Your task to perform on an android device: What's on my calendar tomorrow? Image 0: 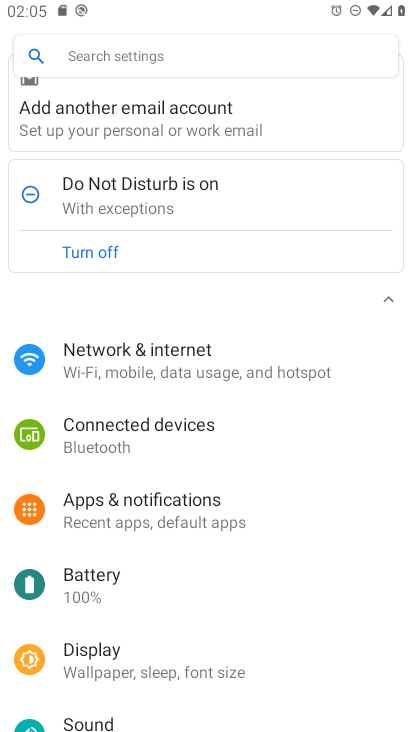
Step 0: press home button
Your task to perform on an android device: What's on my calendar tomorrow? Image 1: 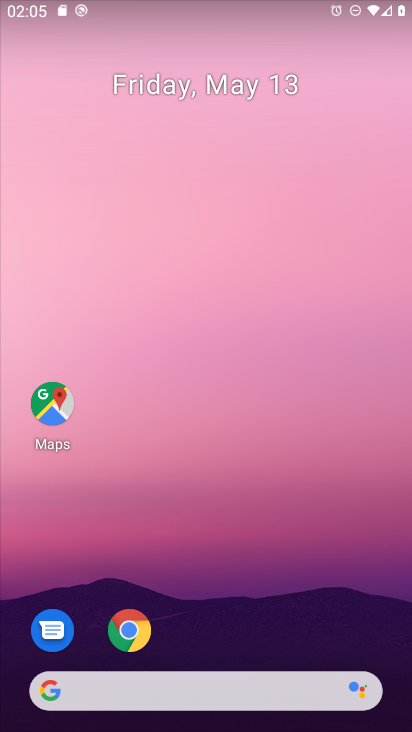
Step 1: drag from (201, 712) to (262, 113)
Your task to perform on an android device: What's on my calendar tomorrow? Image 2: 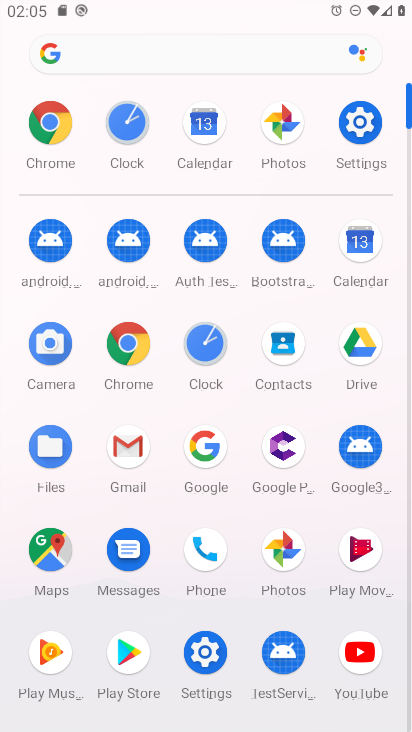
Step 2: click (344, 248)
Your task to perform on an android device: What's on my calendar tomorrow? Image 3: 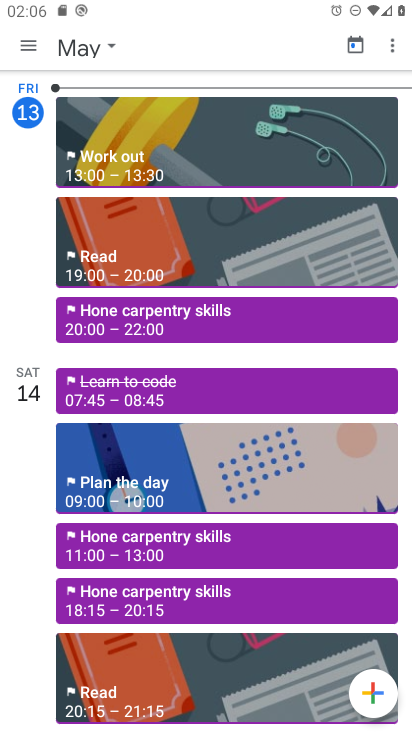
Step 3: task complete